Your task to perform on an android device: turn on airplane mode Image 0: 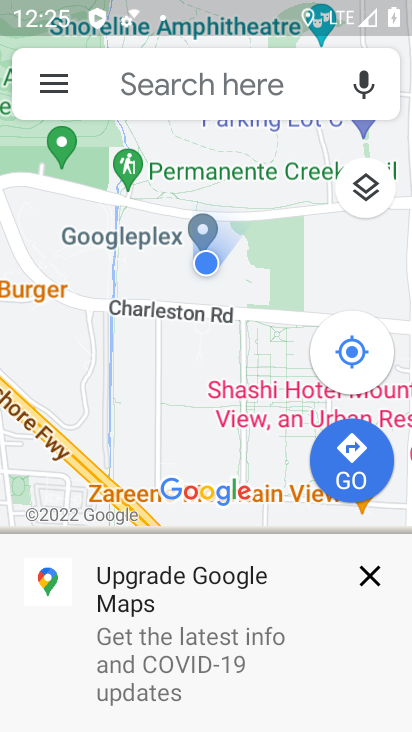
Step 0: press back button
Your task to perform on an android device: turn on airplane mode Image 1: 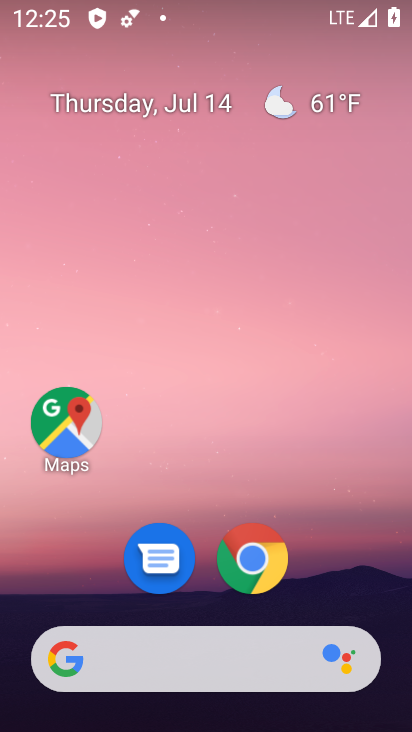
Step 1: drag from (199, 16) to (210, 605)
Your task to perform on an android device: turn on airplane mode Image 2: 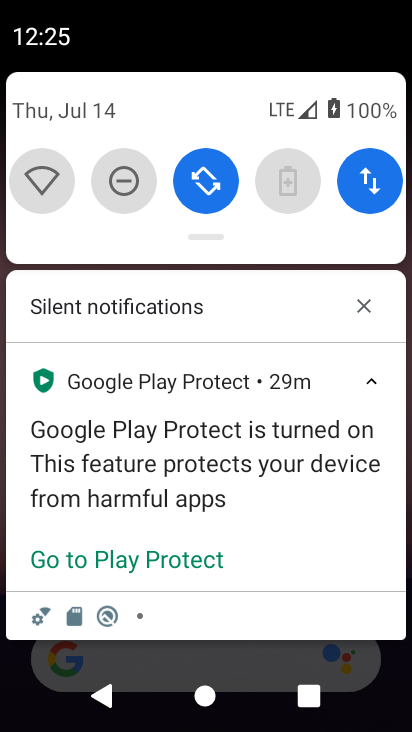
Step 2: drag from (224, 229) to (202, 722)
Your task to perform on an android device: turn on airplane mode Image 3: 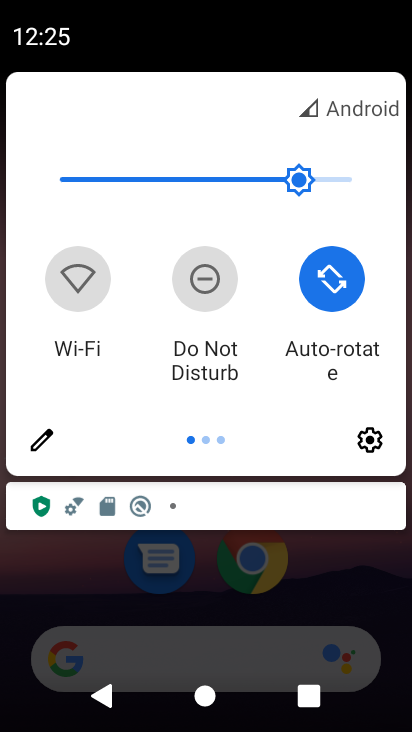
Step 3: drag from (340, 289) to (43, 303)
Your task to perform on an android device: turn on airplane mode Image 4: 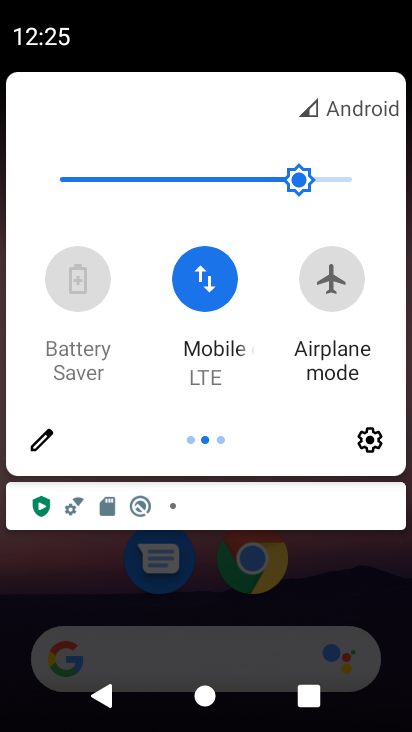
Step 4: click (336, 273)
Your task to perform on an android device: turn on airplane mode Image 5: 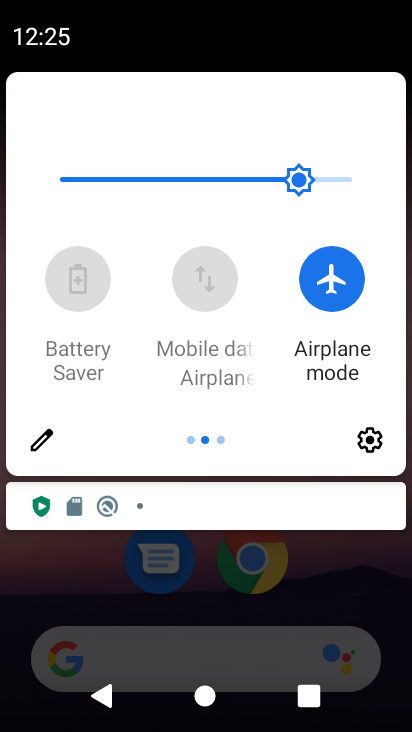
Step 5: task complete